Your task to perform on an android device: Search for vegetarian restaurants on Maps Image 0: 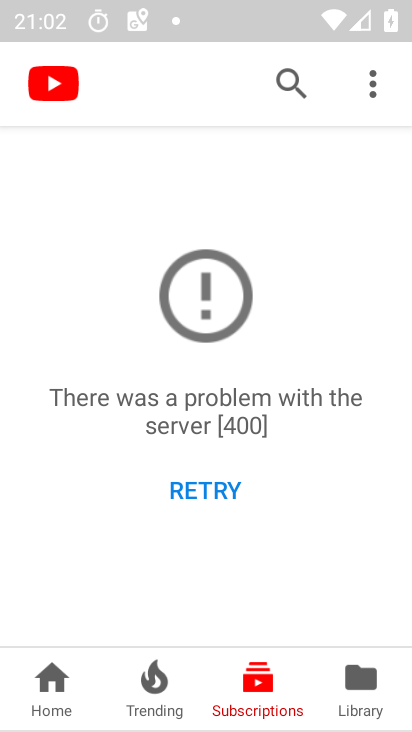
Step 0: press home button
Your task to perform on an android device: Search for vegetarian restaurants on Maps Image 1: 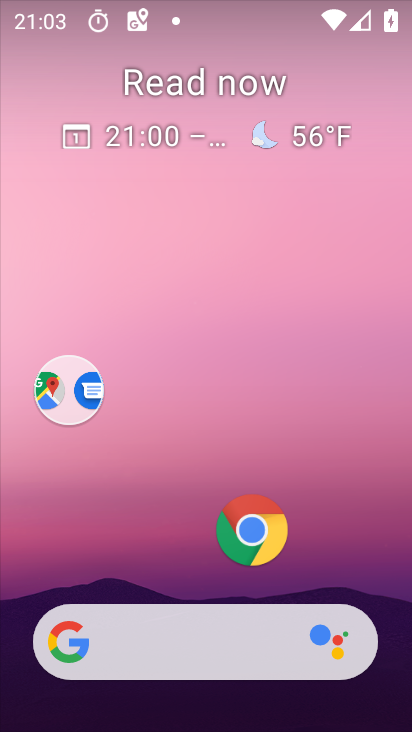
Step 1: drag from (168, 551) to (133, 56)
Your task to perform on an android device: Search for vegetarian restaurants on Maps Image 2: 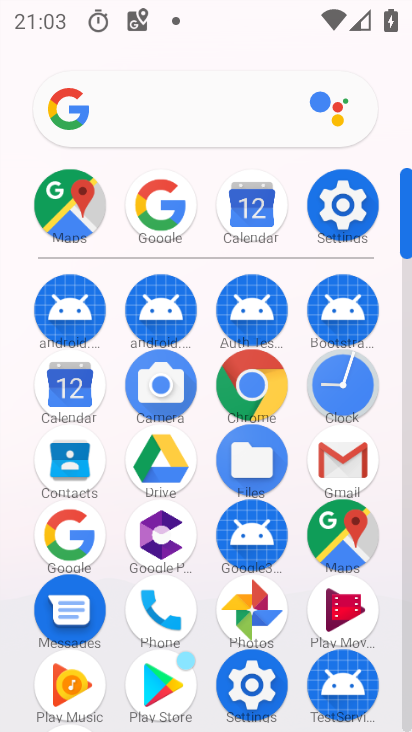
Step 2: click (74, 210)
Your task to perform on an android device: Search for vegetarian restaurants on Maps Image 3: 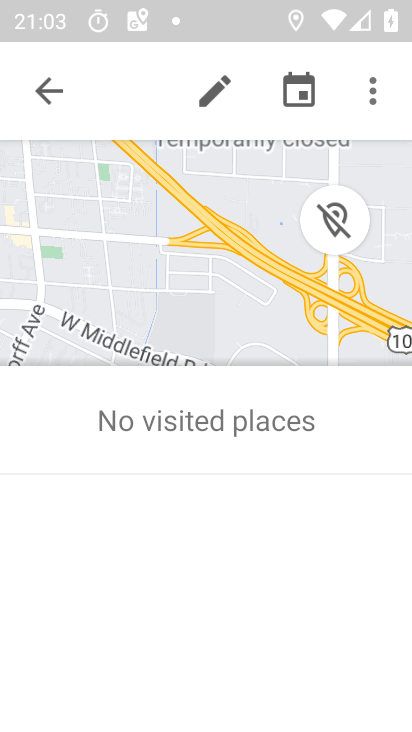
Step 3: press back button
Your task to perform on an android device: Search for vegetarian restaurants on Maps Image 4: 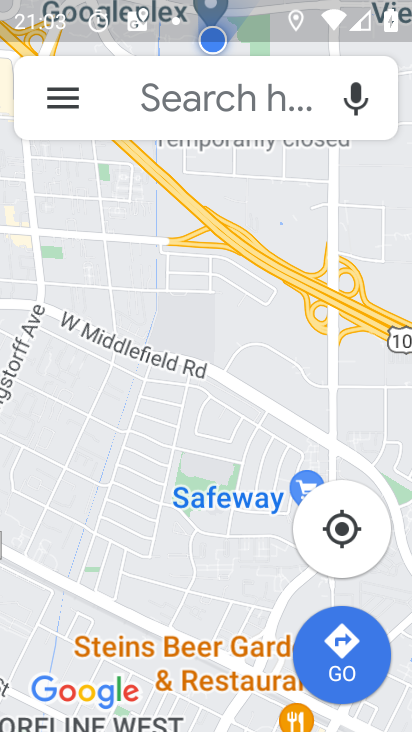
Step 4: click (217, 104)
Your task to perform on an android device: Search for vegetarian restaurants on Maps Image 5: 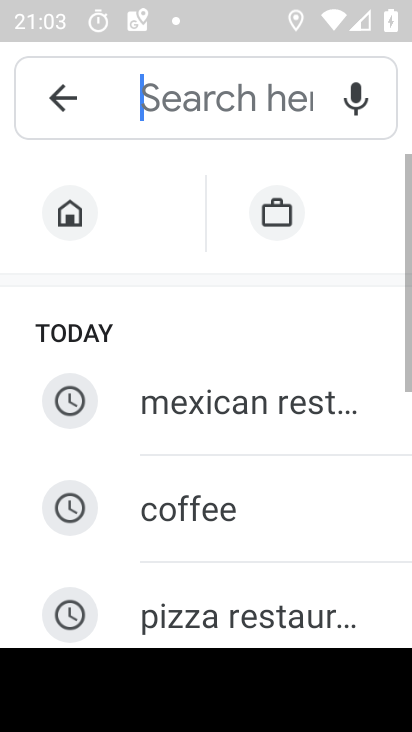
Step 5: drag from (260, 519) to (310, 105)
Your task to perform on an android device: Search for vegetarian restaurants on Maps Image 6: 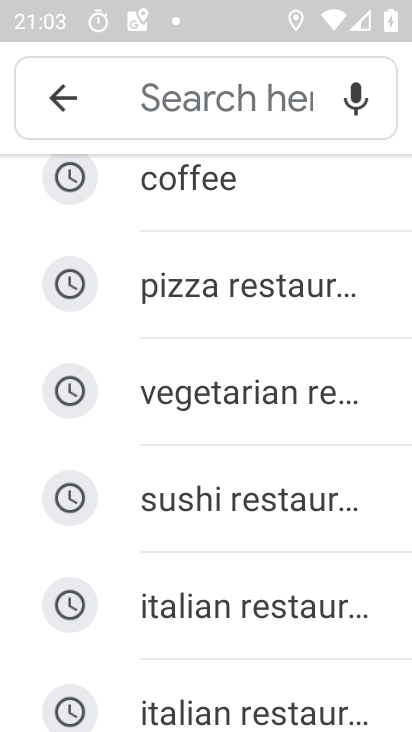
Step 6: click (208, 385)
Your task to perform on an android device: Search for vegetarian restaurants on Maps Image 7: 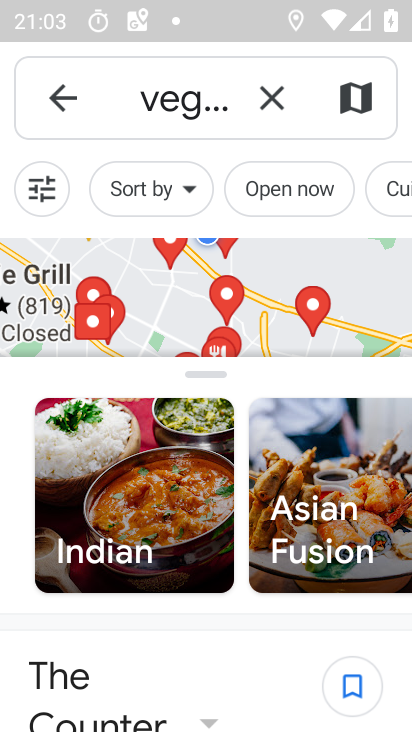
Step 7: task complete